Your task to perform on an android device: snooze an email in the gmail app Image 0: 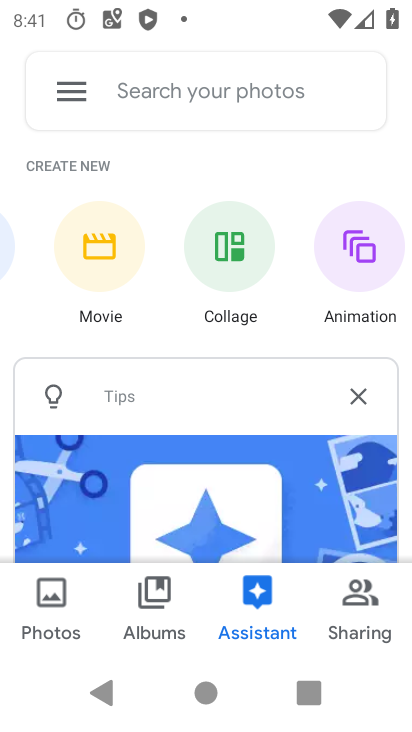
Step 0: press home button
Your task to perform on an android device: snooze an email in the gmail app Image 1: 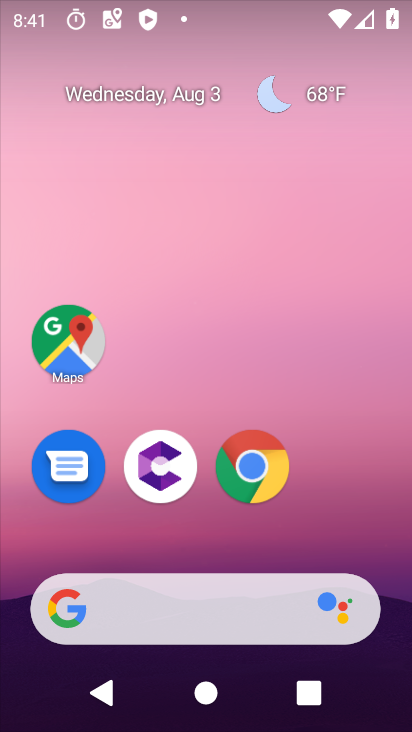
Step 1: drag from (339, 528) to (325, 54)
Your task to perform on an android device: snooze an email in the gmail app Image 2: 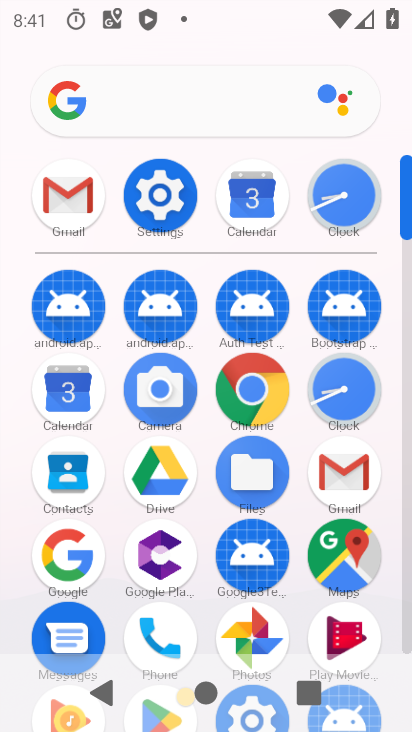
Step 2: click (357, 470)
Your task to perform on an android device: snooze an email in the gmail app Image 3: 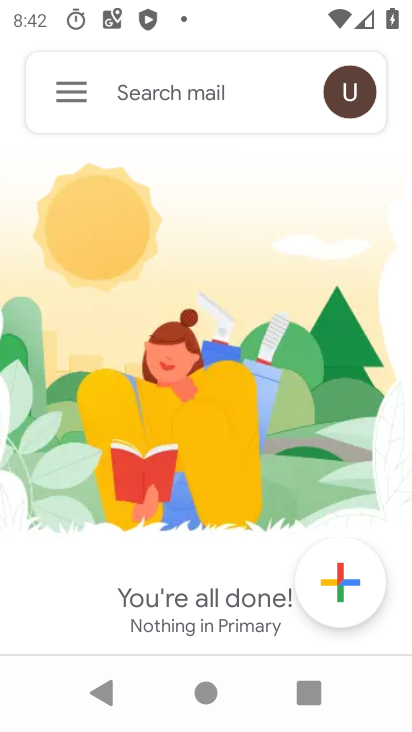
Step 3: click (58, 77)
Your task to perform on an android device: snooze an email in the gmail app Image 4: 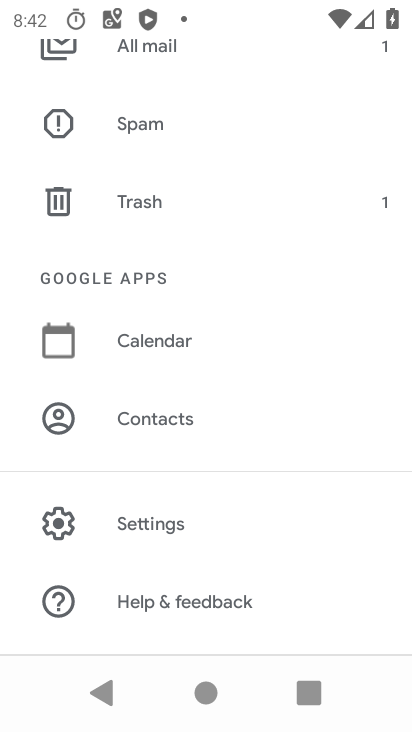
Step 4: click (147, 51)
Your task to perform on an android device: snooze an email in the gmail app Image 5: 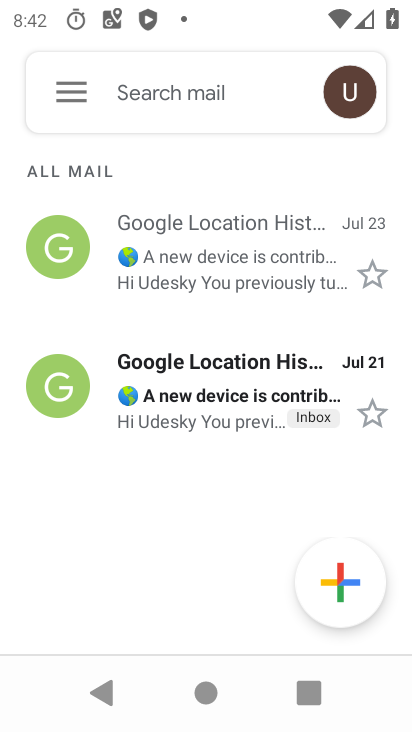
Step 5: click (201, 242)
Your task to perform on an android device: snooze an email in the gmail app Image 6: 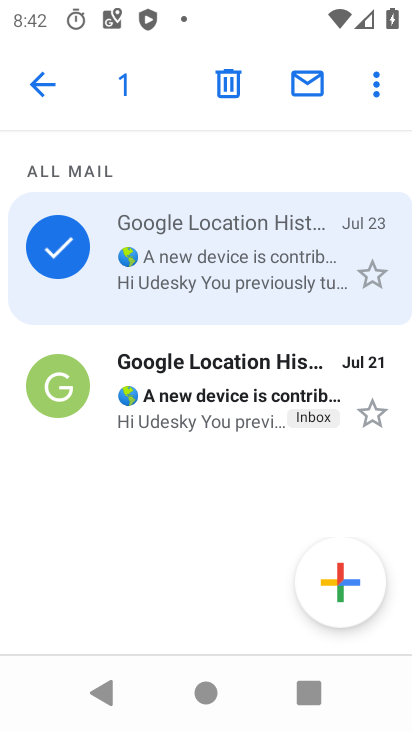
Step 6: click (378, 84)
Your task to perform on an android device: snooze an email in the gmail app Image 7: 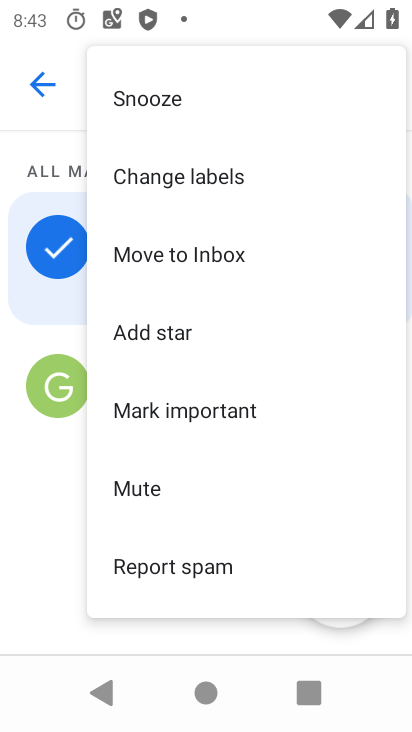
Step 7: click (172, 112)
Your task to perform on an android device: snooze an email in the gmail app Image 8: 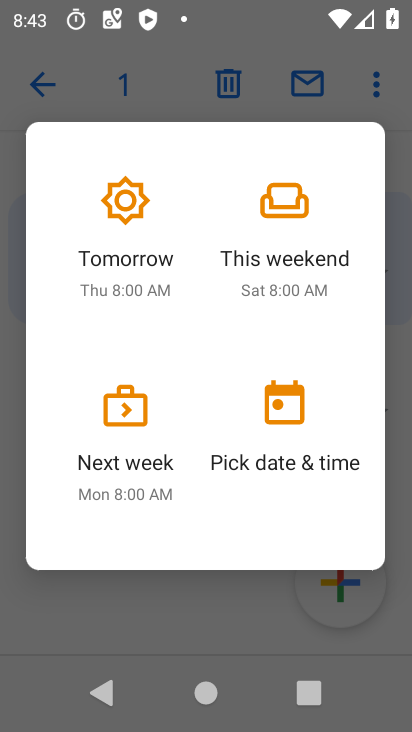
Step 8: click (146, 237)
Your task to perform on an android device: snooze an email in the gmail app Image 9: 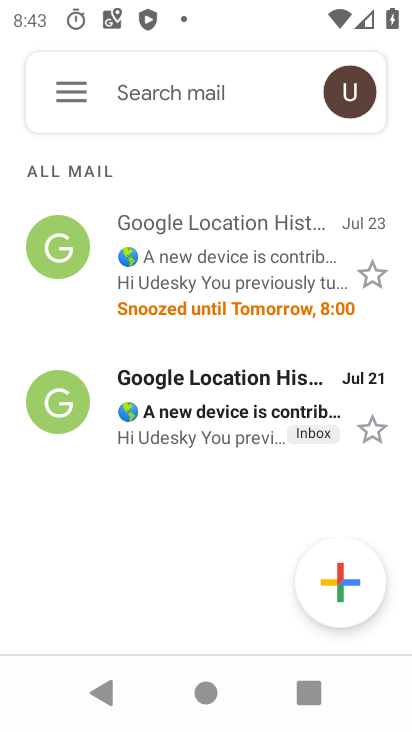
Step 9: task complete